Your task to perform on an android device: Go to accessibility settings Image 0: 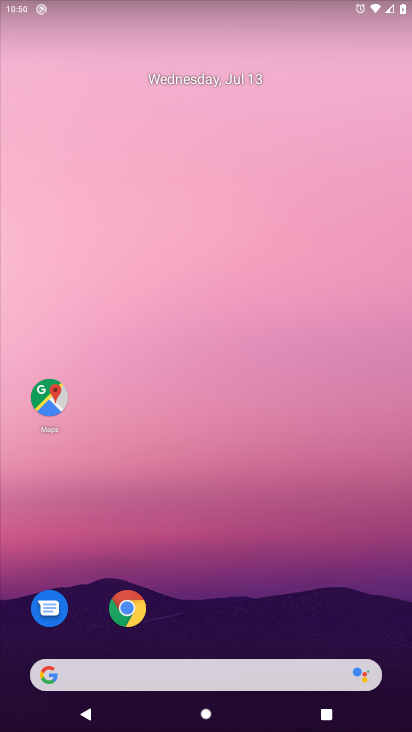
Step 0: drag from (25, 717) to (153, 34)
Your task to perform on an android device: Go to accessibility settings Image 1: 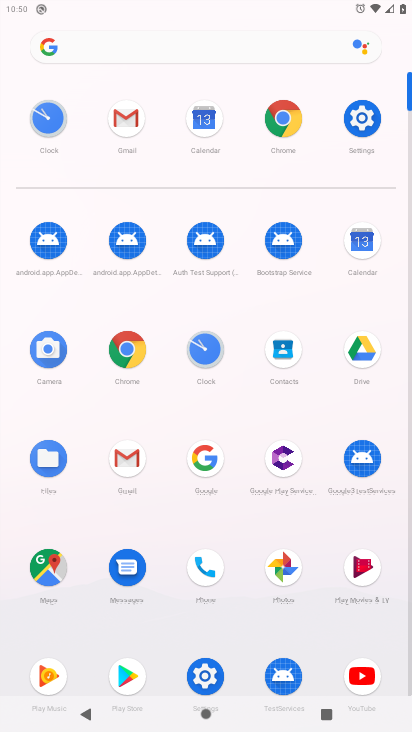
Step 1: click (204, 677)
Your task to perform on an android device: Go to accessibility settings Image 2: 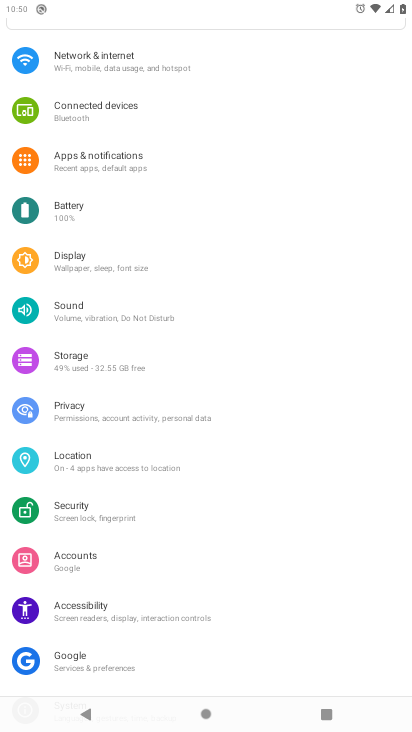
Step 2: click (137, 613)
Your task to perform on an android device: Go to accessibility settings Image 3: 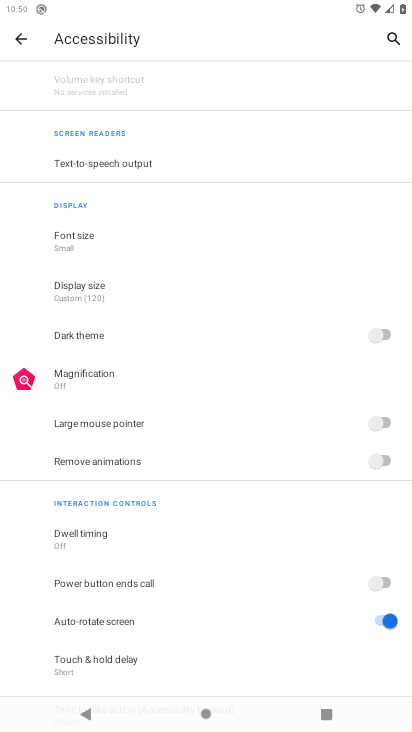
Step 3: task complete